Your task to perform on an android device: check battery use Image 0: 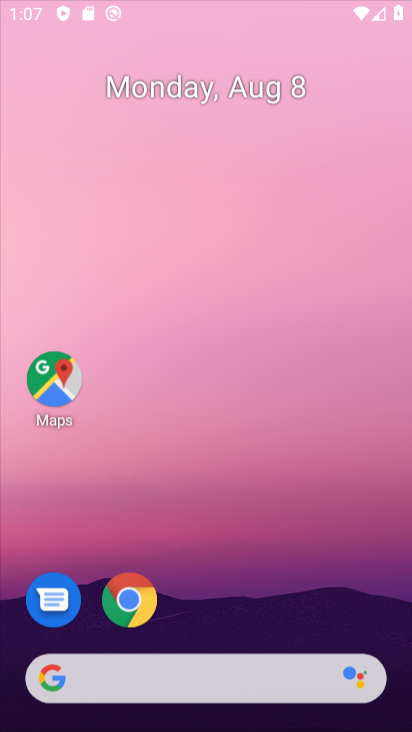
Step 0: press home button
Your task to perform on an android device: check battery use Image 1: 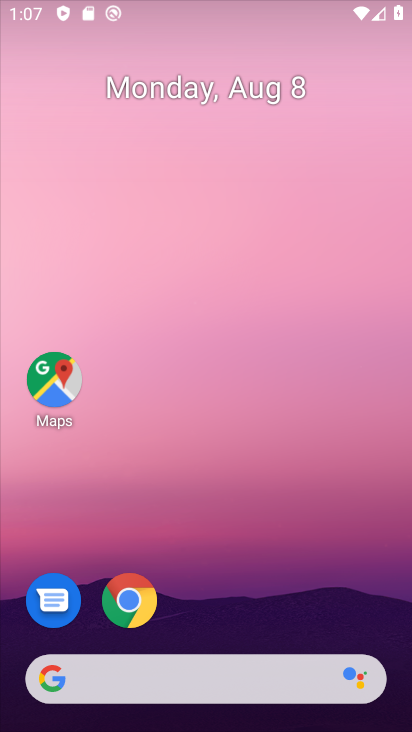
Step 1: drag from (172, 578) to (268, 200)
Your task to perform on an android device: check battery use Image 2: 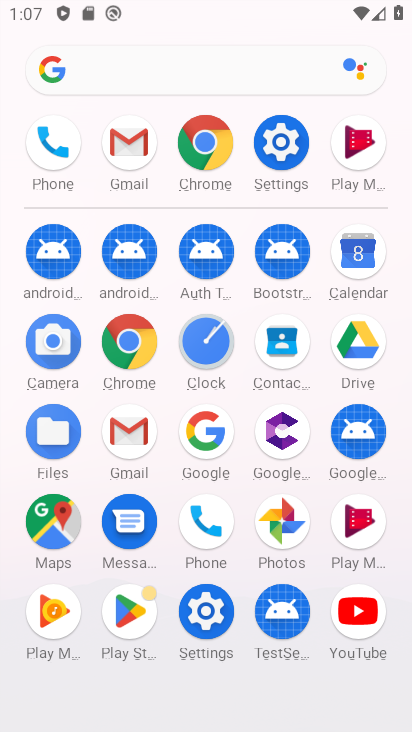
Step 2: click (211, 583)
Your task to perform on an android device: check battery use Image 3: 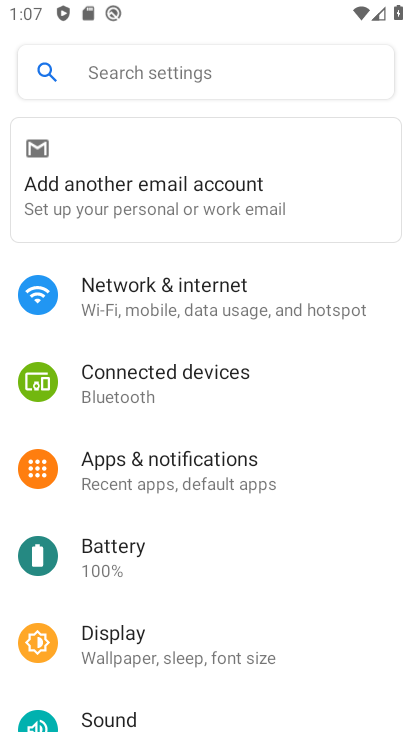
Step 3: click (114, 559)
Your task to perform on an android device: check battery use Image 4: 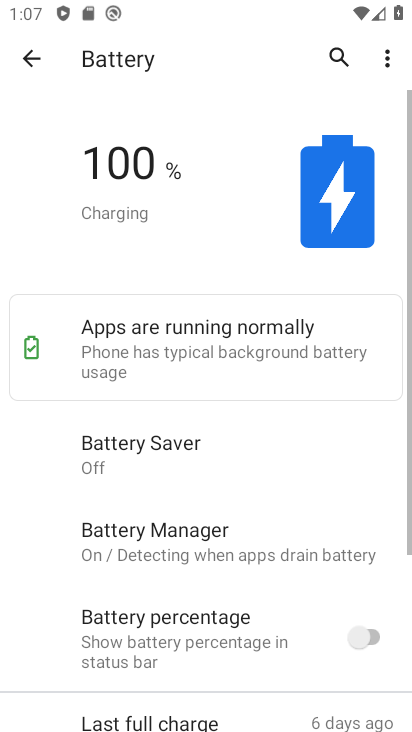
Step 4: task complete